Your task to perform on an android device: Open calendar and show me the second week of next month Image 0: 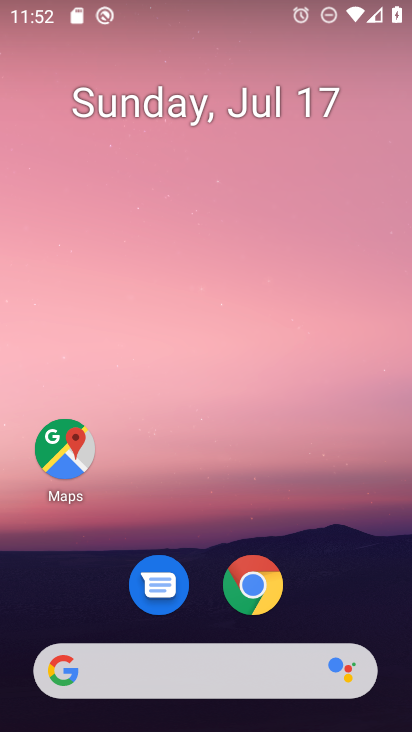
Step 0: drag from (323, 524) to (238, 73)
Your task to perform on an android device: Open calendar and show me the second week of next month Image 1: 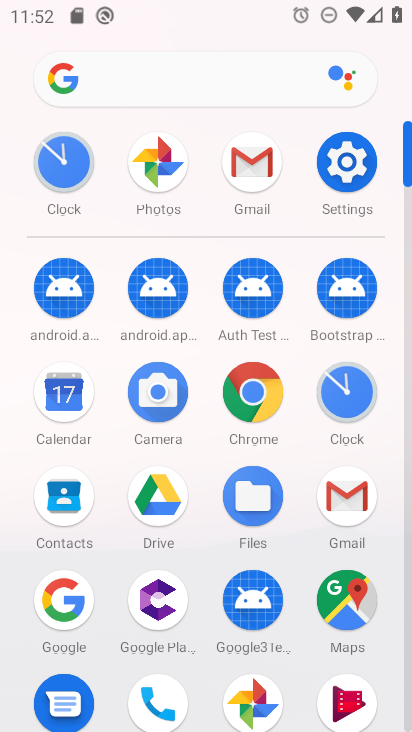
Step 1: click (67, 386)
Your task to perform on an android device: Open calendar and show me the second week of next month Image 2: 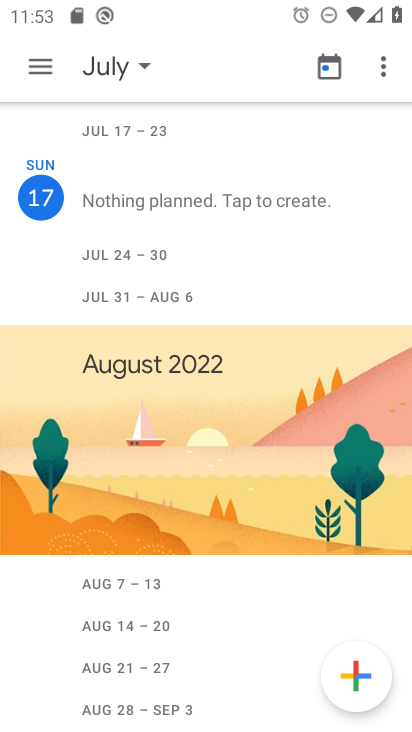
Step 2: click (47, 66)
Your task to perform on an android device: Open calendar and show me the second week of next month Image 3: 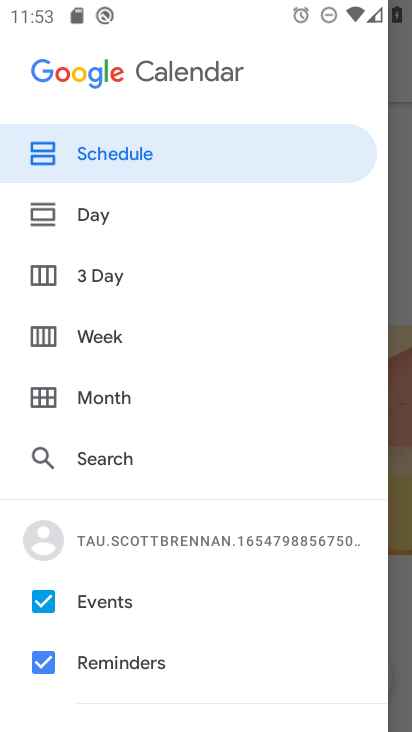
Step 3: click (40, 350)
Your task to perform on an android device: Open calendar and show me the second week of next month Image 4: 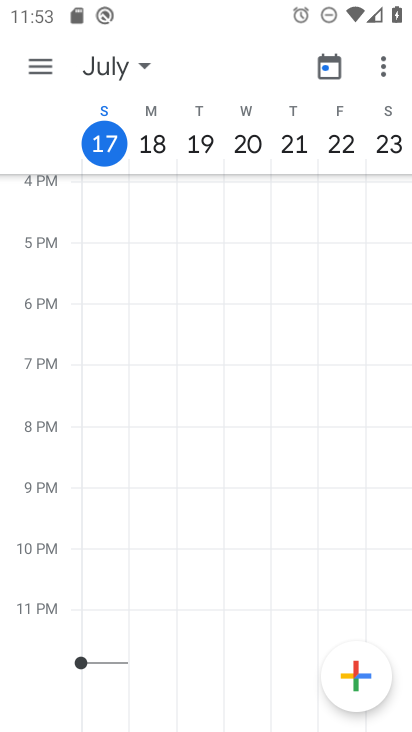
Step 4: task complete